Your task to perform on an android device: star an email in the gmail app Image 0: 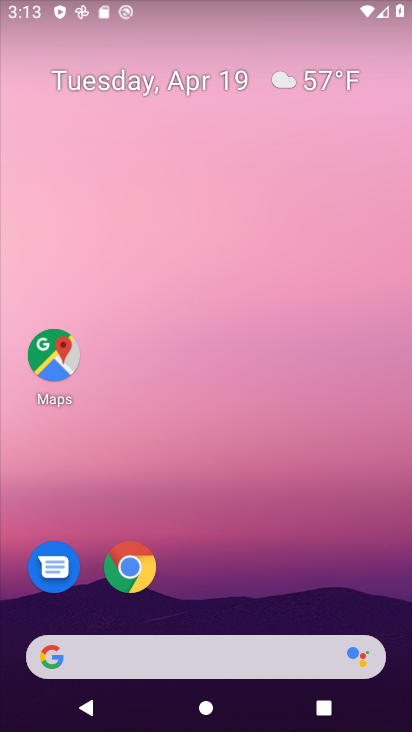
Step 0: drag from (378, 607) to (364, 174)
Your task to perform on an android device: star an email in the gmail app Image 1: 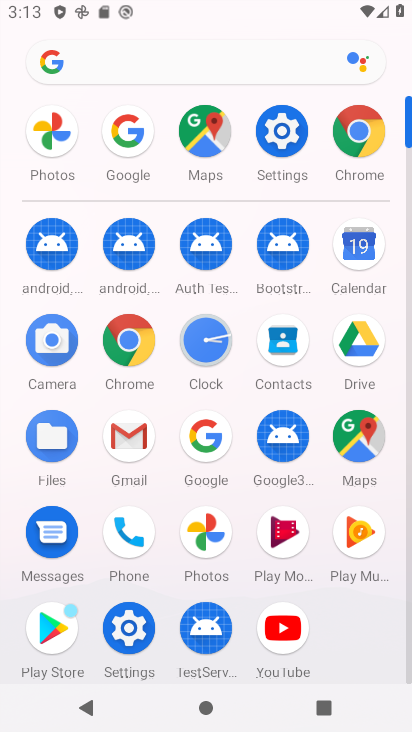
Step 1: click (133, 437)
Your task to perform on an android device: star an email in the gmail app Image 2: 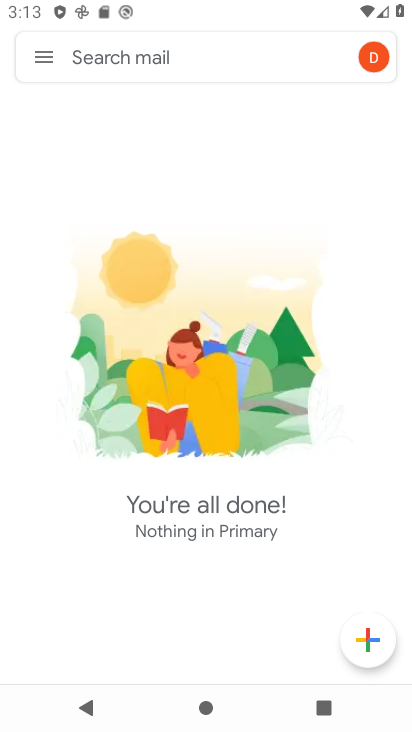
Step 2: click (38, 48)
Your task to perform on an android device: star an email in the gmail app Image 3: 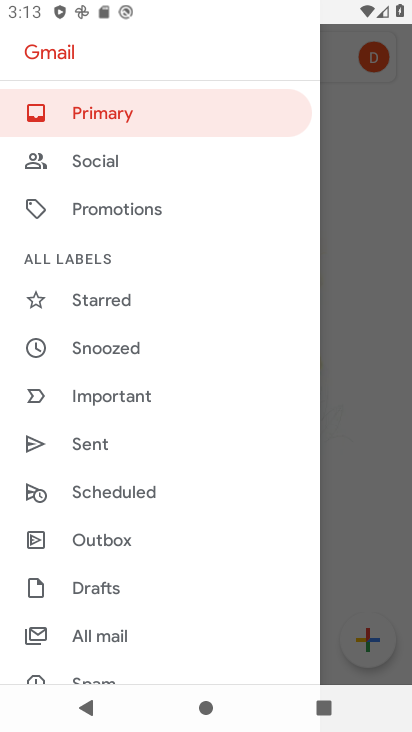
Step 3: drag from (214, 573) to (236, 357)
Your task to perform on an android device: star an email in the gmail app Image 4: 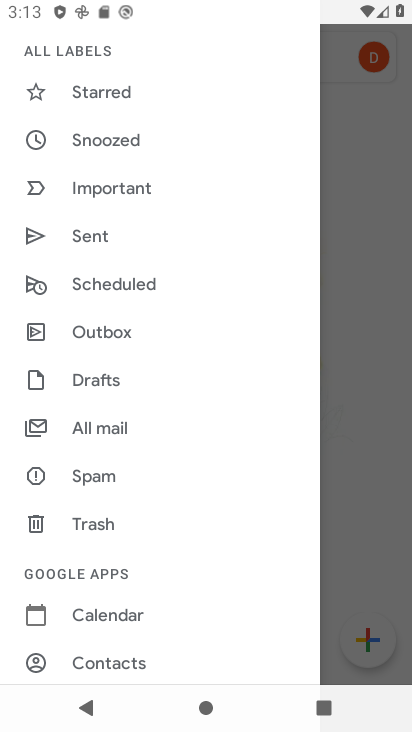
Step 4: drag from (251, 584) to (269, 293)
Your task to perform on an android device: star an email in the gmail app Image 5: 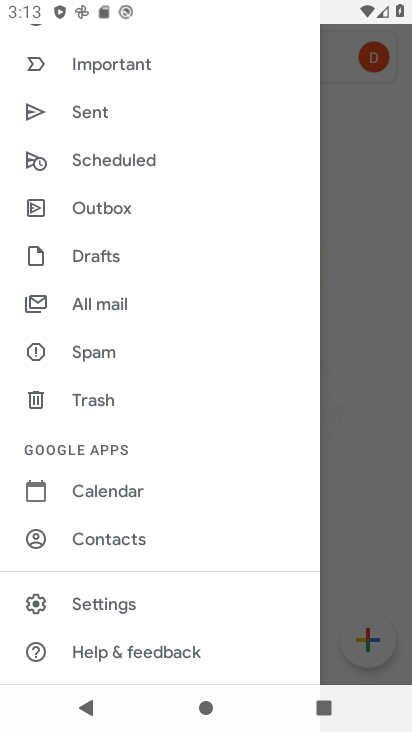
Step 5: drag from (269, 221) to (262, 415)
Your task to perform on an android device: star an email in the gmail app Image 6: 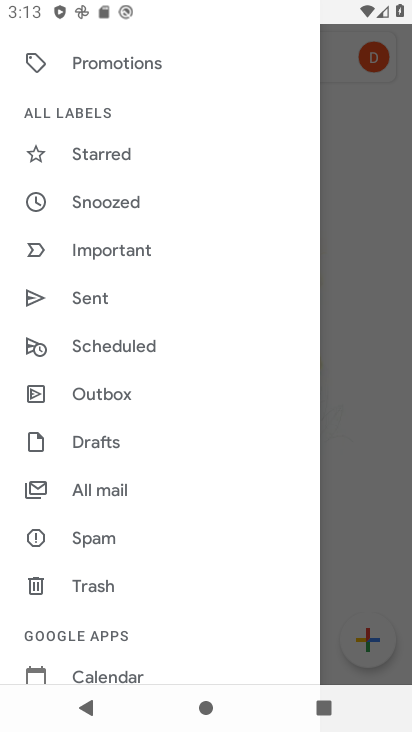
Step 6: drag from (259, 207) to (255, 436)
Your task to perform on an android device: star an email in the gmail app Image 7: 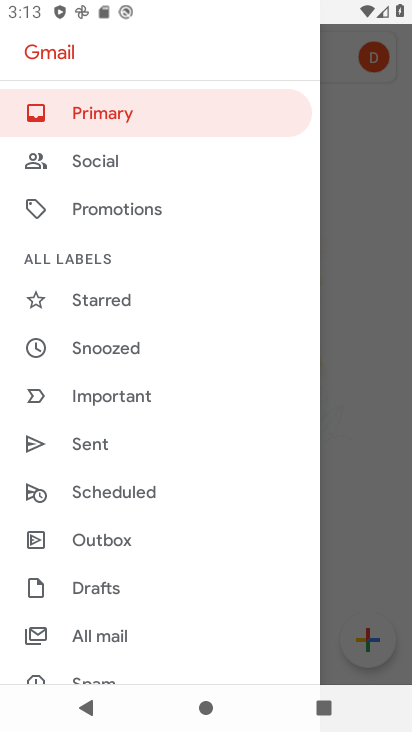
Step 7: drag from (264, 247) to (244, 422)
Your task to perform on an android device: star an email in the gmail app Image 8: 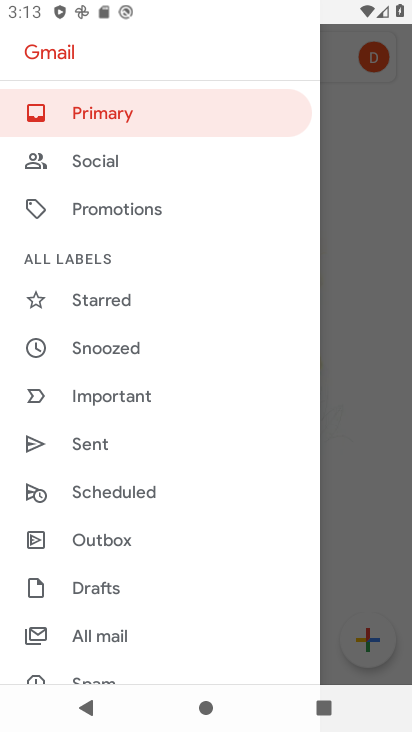
Step 8: click (382, 336)
Your task to perform on an android device: star an email in the gmail app Image 9: 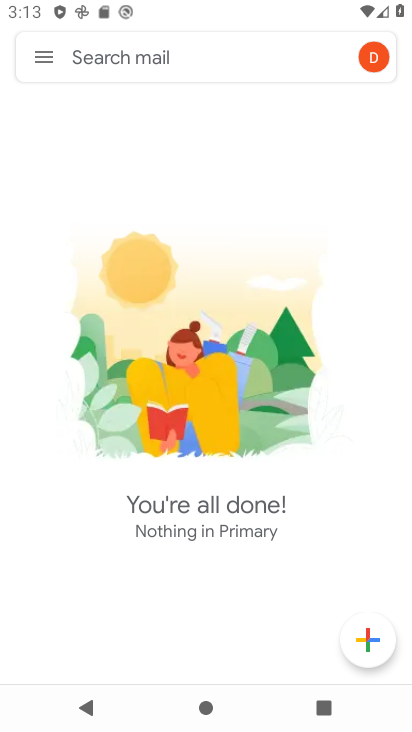
Step 9: task complete